Your task to perform on an android device: Open Google Chrome and open the bookmarks view Image 0: 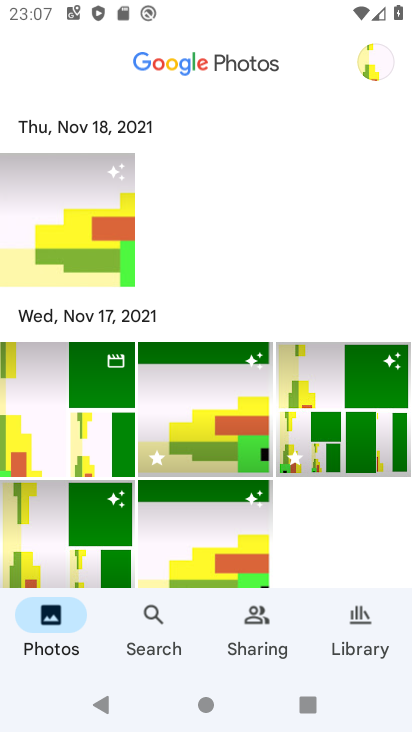
Step 0: press home button
Your task to perform on an android device: Open Google Chrome and open the bookmarks view Image 1: 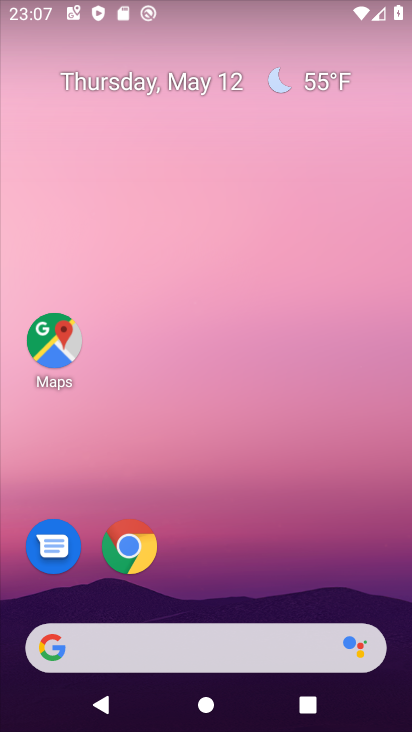
Step 1: drag from (175, 586) to (218, 198)
Your task to perform on an android device: Open Google Chrome and open the bookmarks view Image 2: 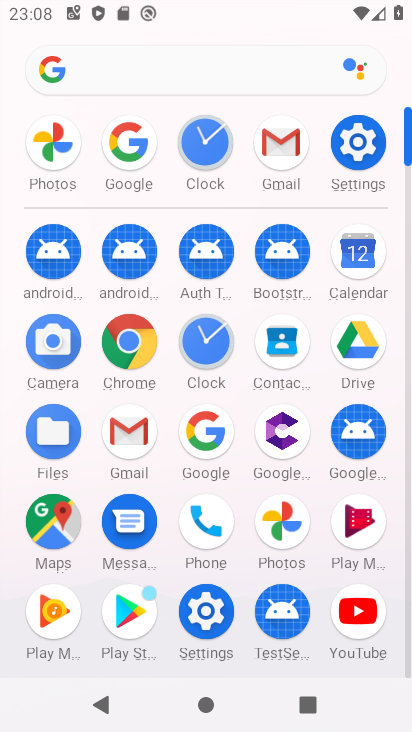
Step 2: click (128, 343)
Your task to perform on an android device: Open Google Chrome and open the bookmarks view Image 3: 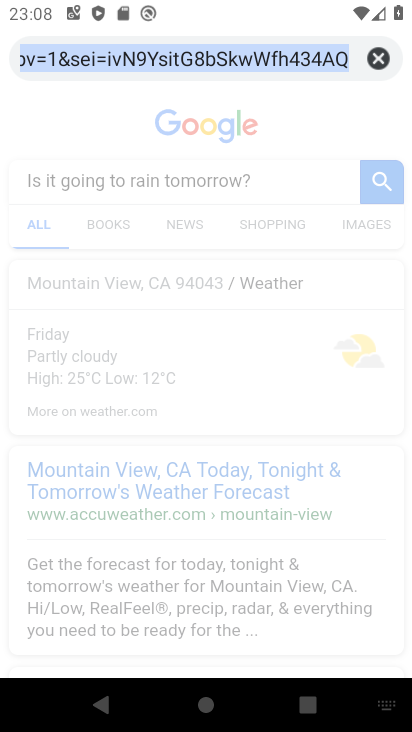
Step 3: click (336, 116)
Your task to perform on an android device: Open Google Chrome and open the bookmarks view Image 4: 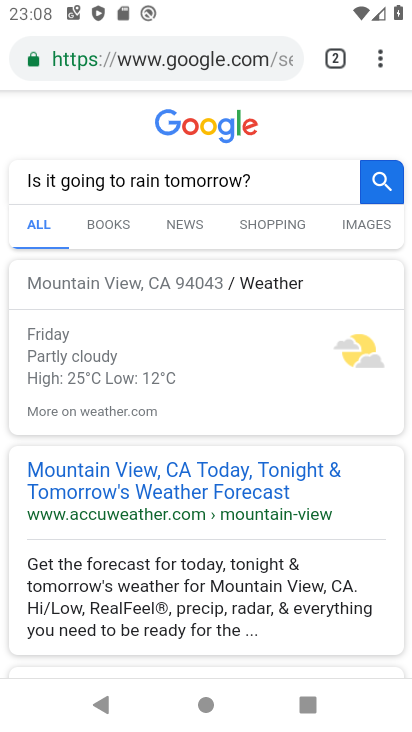
Step 4: click (355, 95)
Your task to perform on an android device: Open Google Chrome and open the bookmarks view Image 5: 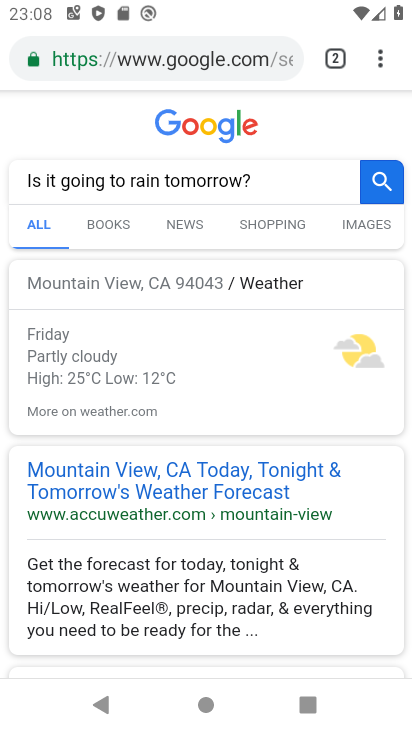
Step 5: click (379, 60)
Your task to perform on an android device: Open Google Chrome and open the bookmarks view Image 6: 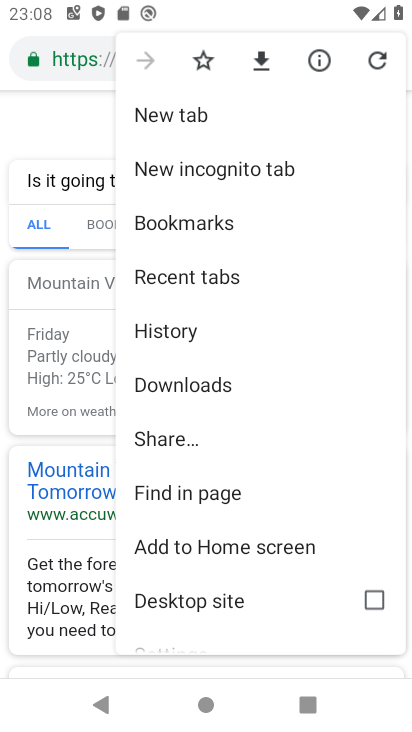
Step 6: click (191, 239)
Your task to perform on an android device: Open Google Chrome and open the bookmarks view Image 7: 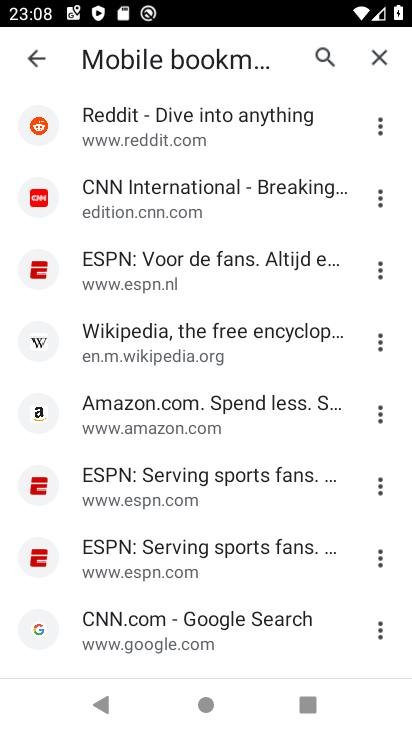
Step 7: task complete